Your task to perform on an android device: set default search engine in the chrome app Image 0: 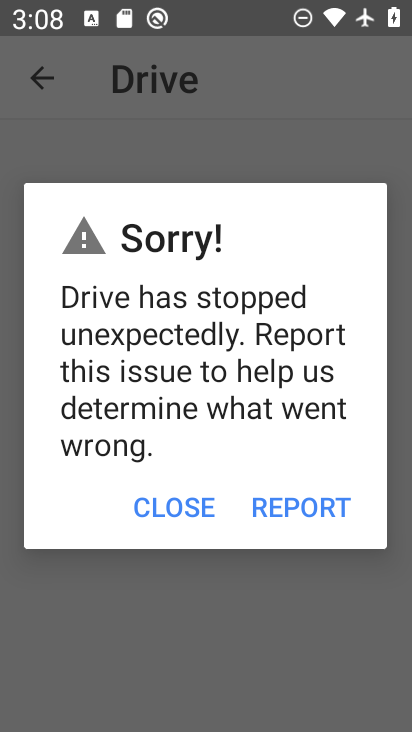
Step 0: press home button
Your task to perform on an android device: set default search engine in the chrome app Image 1: 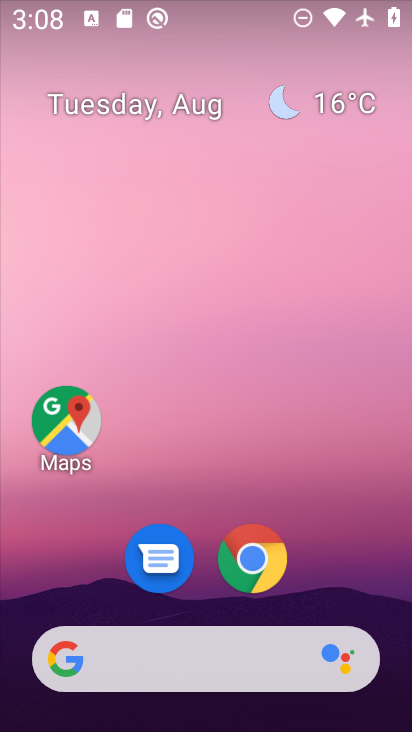
Step 1: click (253, 564)
Your task to perform on an android device: set default search engine in the chrome app Image 2: 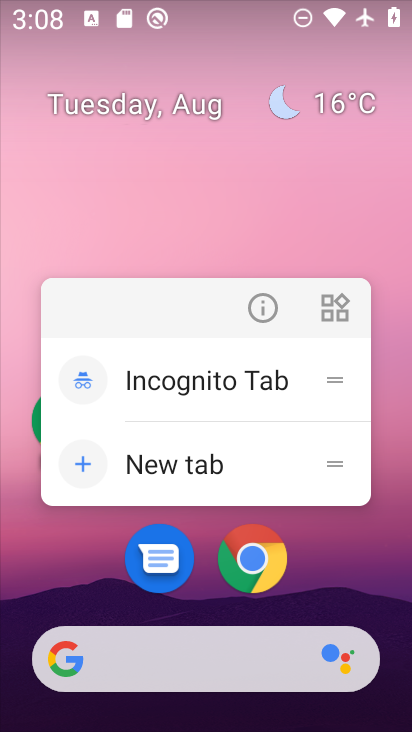
Step 2: click (246, 550)
Your task to perform on an android device: set default search engine in the chrome app Image 3: 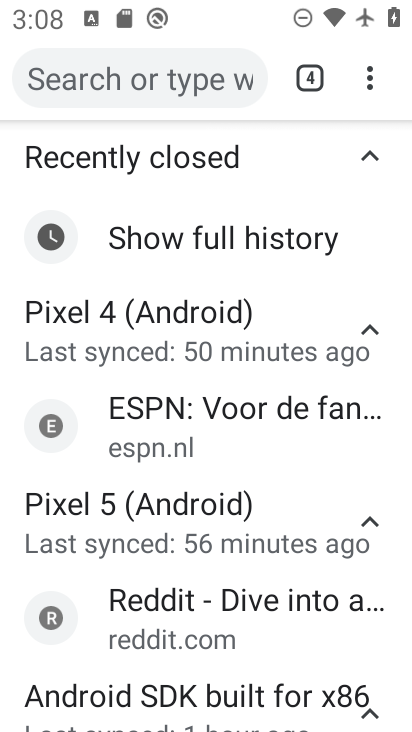
Step 3: click (368, 74)
Your task to perform on an android device: set default search engine in the chrome app Image 4: 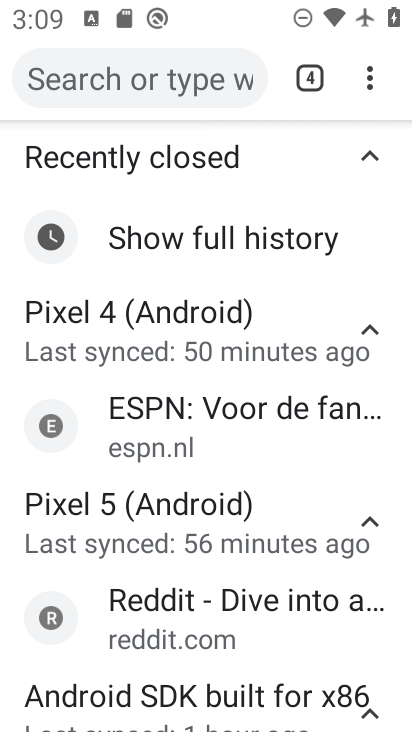
Step 4: click (364, 88)
Your task to perform on an android device: set default search engine in the chrome app Image 5: 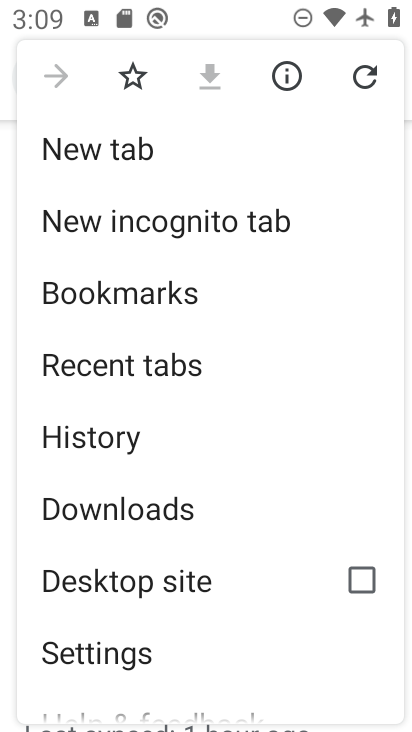
Step 5: click (117, 643)
Your task to perform on an android device: set default search engine in the chrome app Image 6: 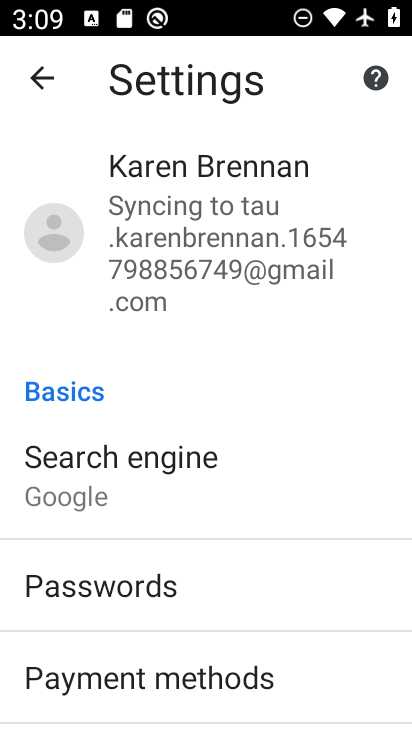
Step 6: click (124, 488)
Your task to perform on an android device: set default search engine in the chrome app Image 7: 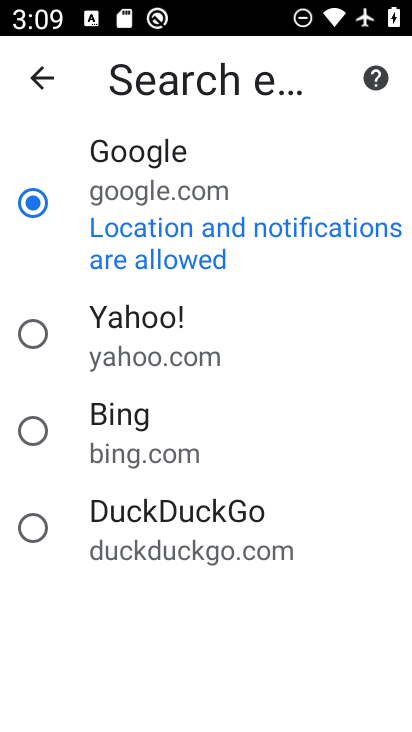
Step 7: task complete